Your task to perform on an android device: Open Chrome and go to settings Image 0: 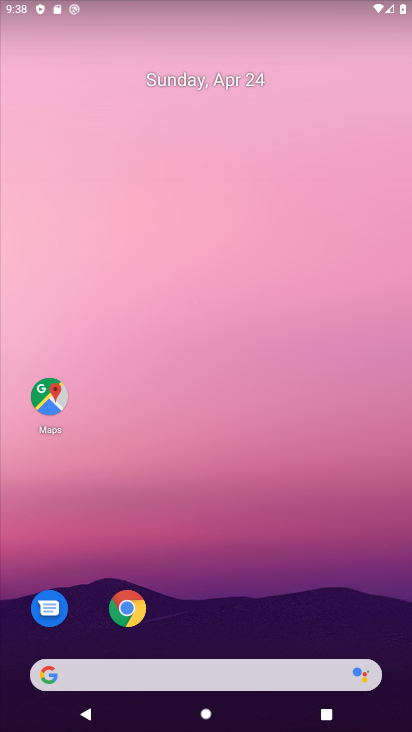
Step 0: drag from (268, 633) to (268, 123)
Your task to perform on an android device: Open Chrome and go to settings Image 1: 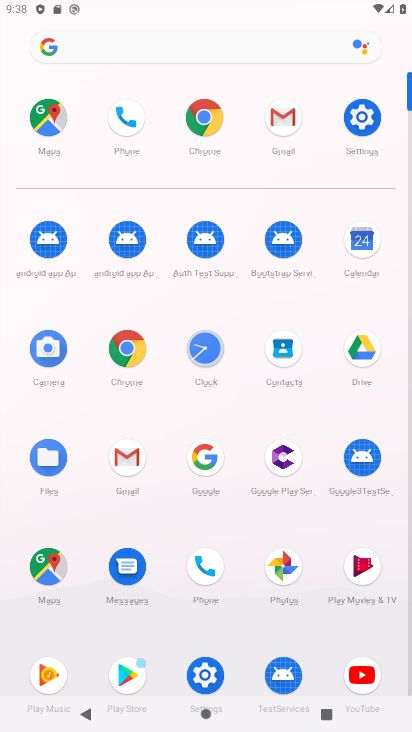
Step 1: click (211, 121)
Your task to perform on an android device: Open Chrome and go to settings Image 2: 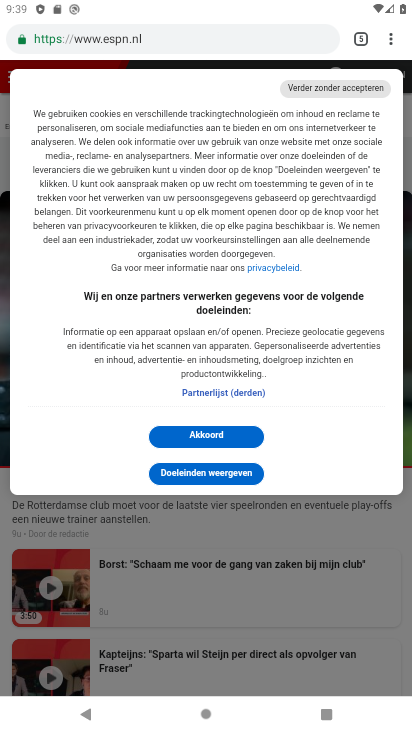
Step 2: click (389, 41)
Your task to perform on an android device: Open Chrome and go to settings Image 3: 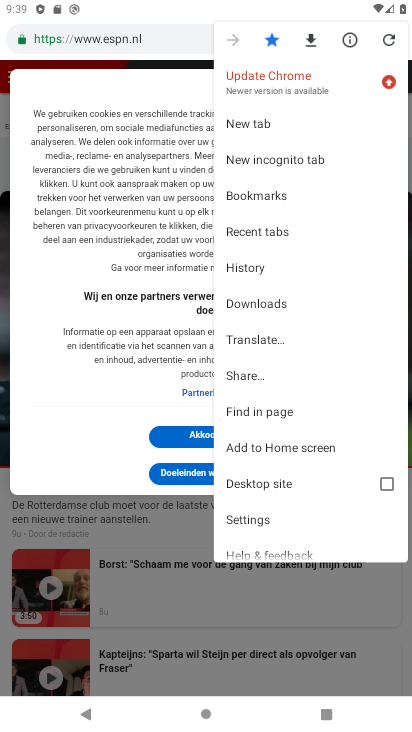
Step 3: click (282, 528)
Your task to perform on an android device: Open Chrome and go to settings Image 4: 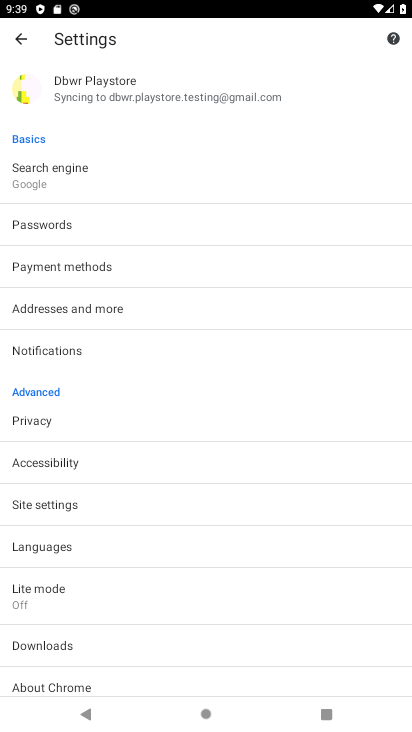
Step 4: task complete